Your task to perform on an android device: turn off priority inbox in the gmail app Image 0: 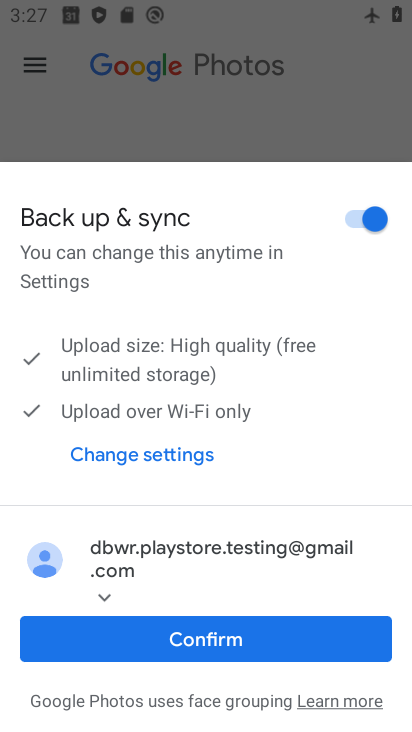
Step 0: press home button
Your task to perform on an android device: turn off priority inbox in the gmail app Image 1: 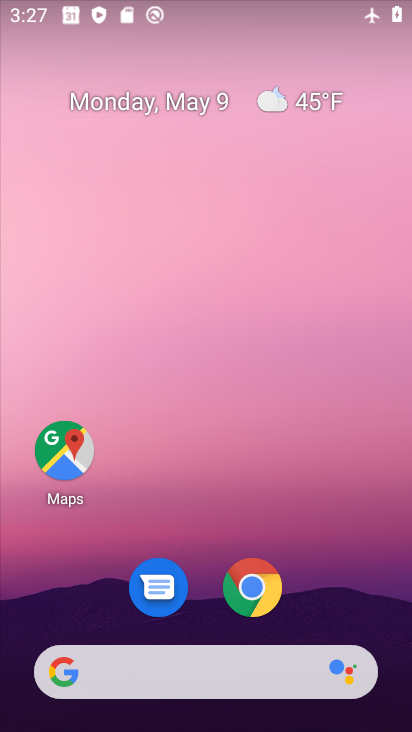
Step 1: drag from (398, 503) to (411, 588)
Your task to perform on an android device: turn off priority inbox in the gmail app Image 2: 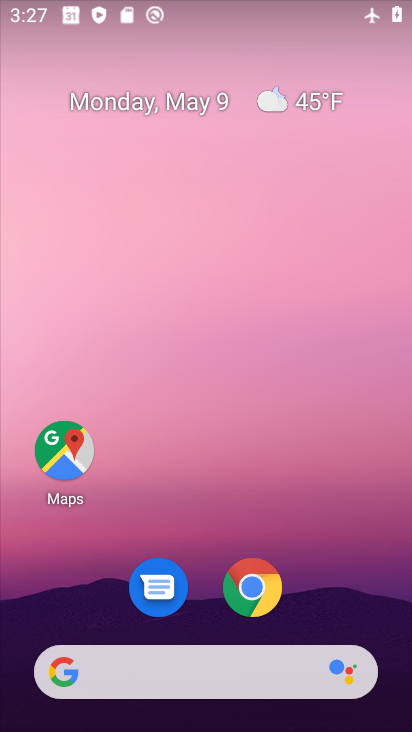
Step 2: drag from (383, 497) to (386, 317)
Your task to perform on an android device: turn off priority inbox in the gmail app Image 3: 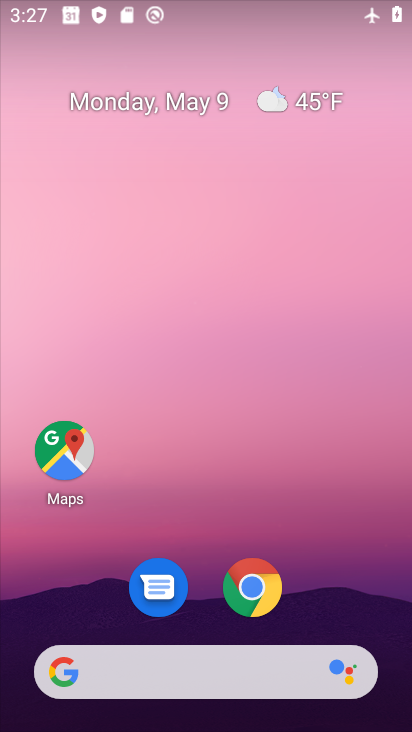
Step 3: drag from (400, 614) to (411, 457)
Your task to perform on an android device: turn off priority inbox in the gmail app Image 4: 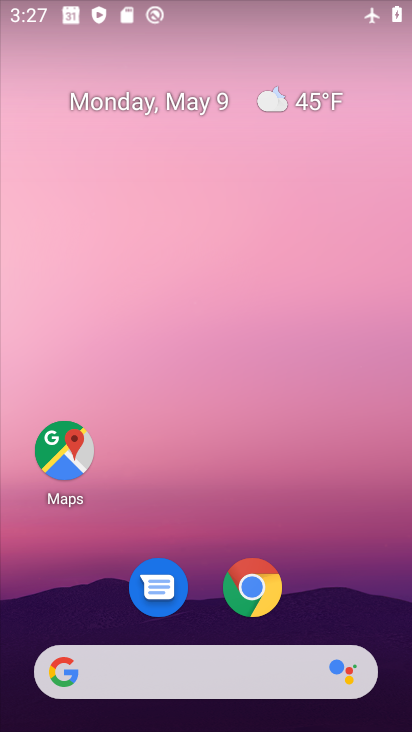
Step 4: drag from (395, 591) to (404, 86)
Your task to perform on an android device: turn off priority inbox in the gmail app Image 5: 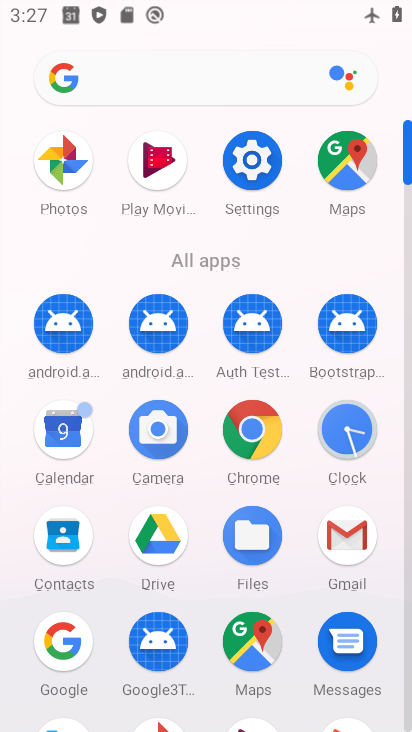
Step 5: click (331, 538)
Your task to perform on an android device: turn off priority inbox in the gmail app Image 6: 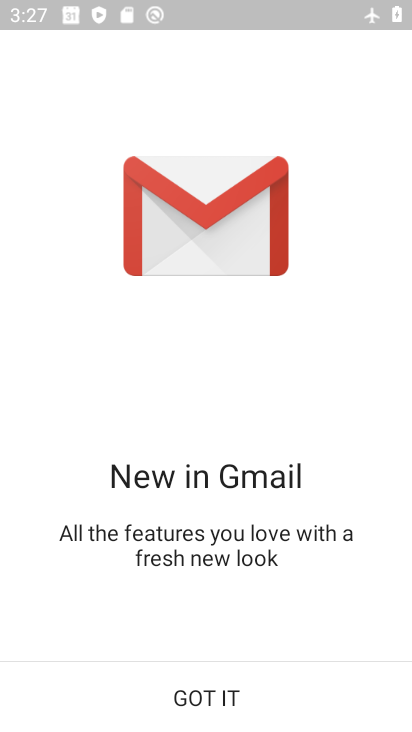
Step 6: click (211, 679)
Your task to perform on an android device: turn off priority inbox in the gmail app Image 7: 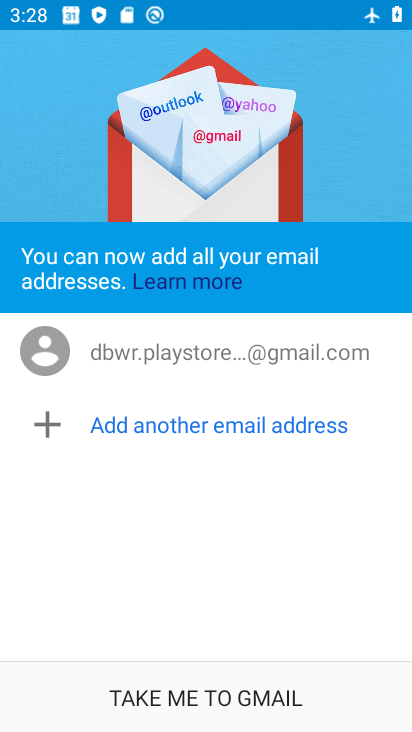
Step 7: click (257, 690)
Your task to perform on an android device: turn off priority inbox in the gmail app Image 8: 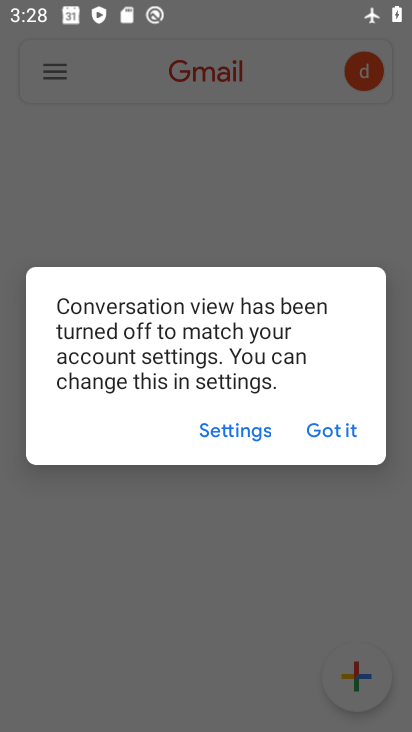
Step 8: click (324, 428)
Your task to perform on an android device: turn off priority inbox in the gmail app Image 9: 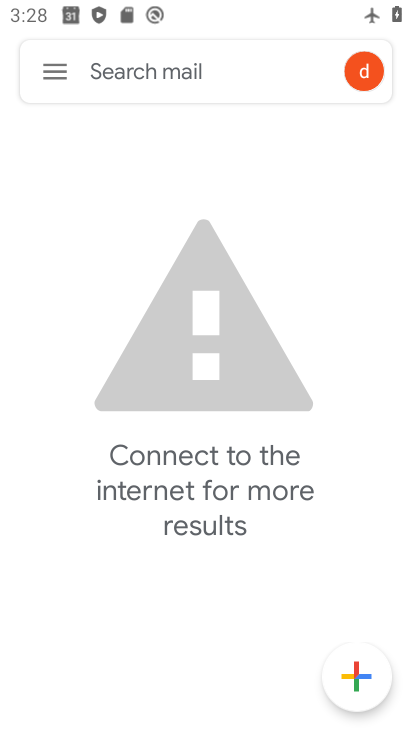
Step 9: task complete